Your task to perform on an android device: Open Google Image 0: 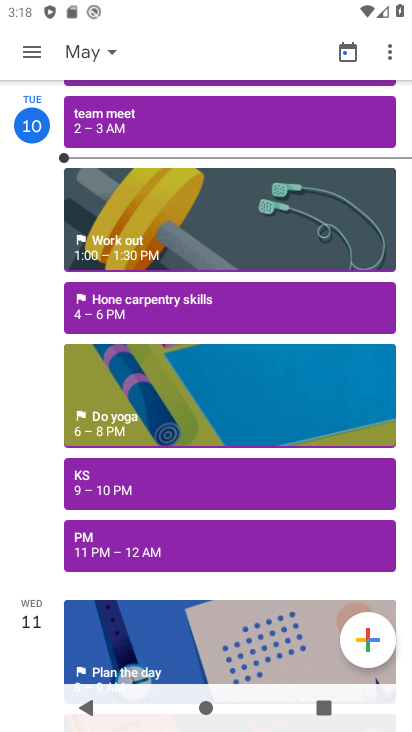
Step 0: press back button
Your task to perform on an android device: Open Google Image 1: 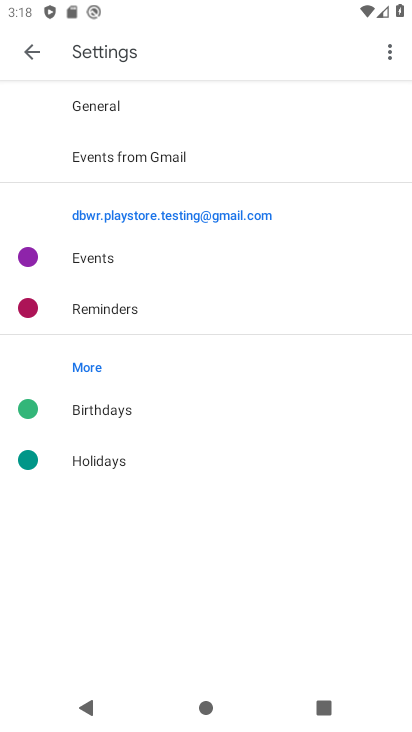
Step 1: press back button
Your task to perform on an android device: Open Google Image 2: 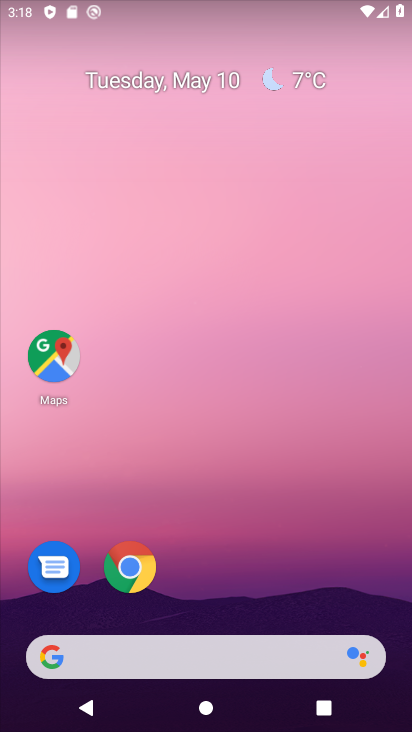
Step 2: drag from (220, 586) to (263, 86)
Your task to perform on an android device: Open Google Image 3: 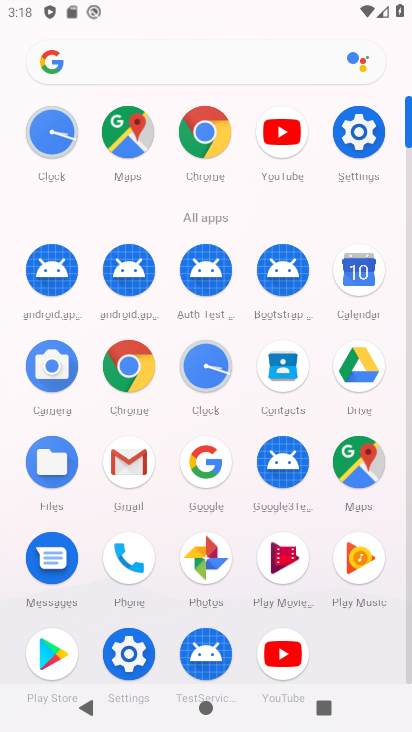
Step 3: click (204, 458)
Your task to perform on an android device: Open Google Image 4: 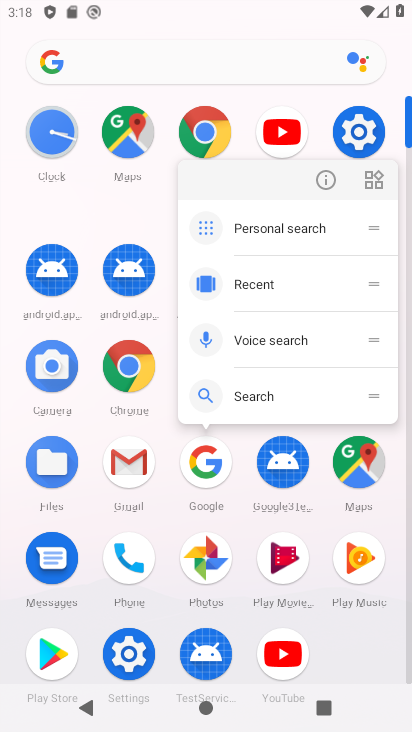
Step 4: click (204, 461)
Your task to perform on an android device: Open Google Image 5: 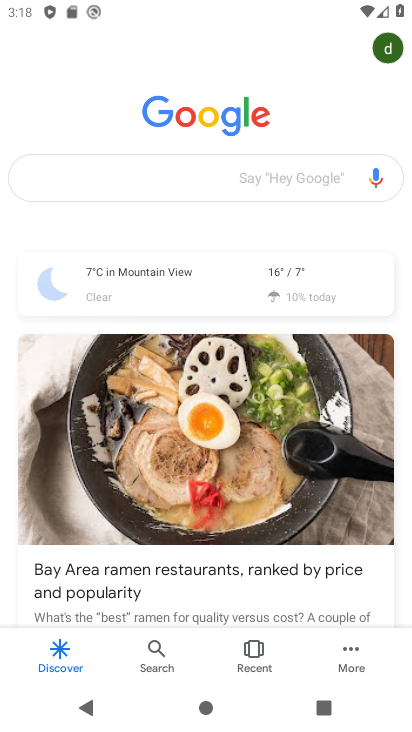
Step 5: task complete